Your task to perform on an android device: turn on improve location accuracy Image 0: 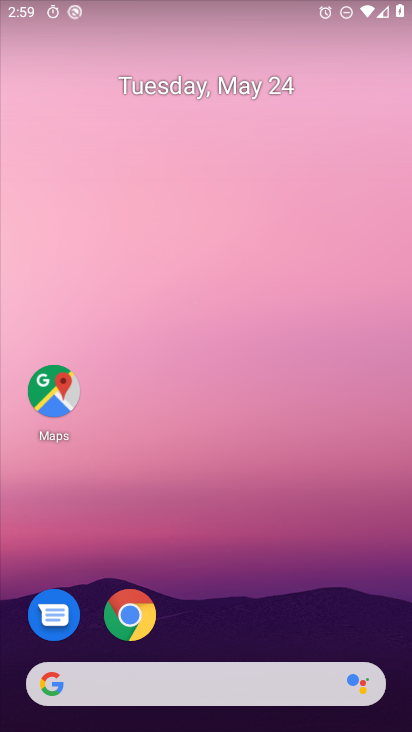
Step 0: drag from (166, 668) to (185, 352)
Your task to perform on an android device: turn on improve location accuracy Image 1: 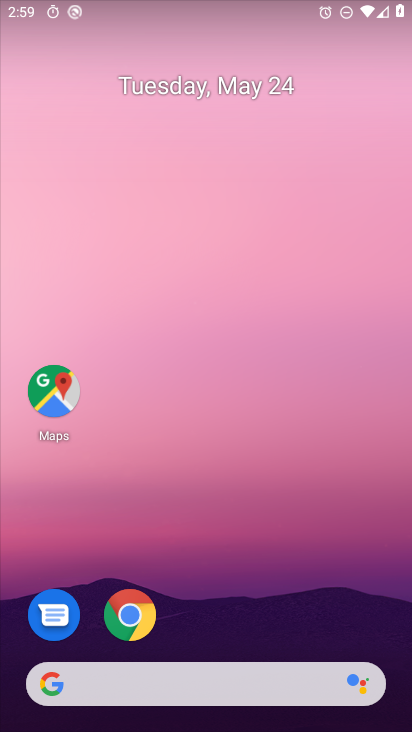
Step 1: drag from (244, 671) to (244, 223)
Your task to perform on an android device: turn on improve location accuracy Image 2: 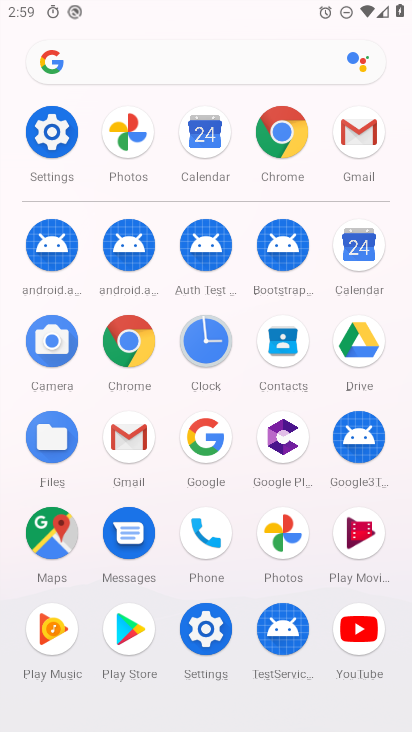
Step 2: click (203, 633)
Your task to perform on an android device: turn on improve location accuracy Image 3: 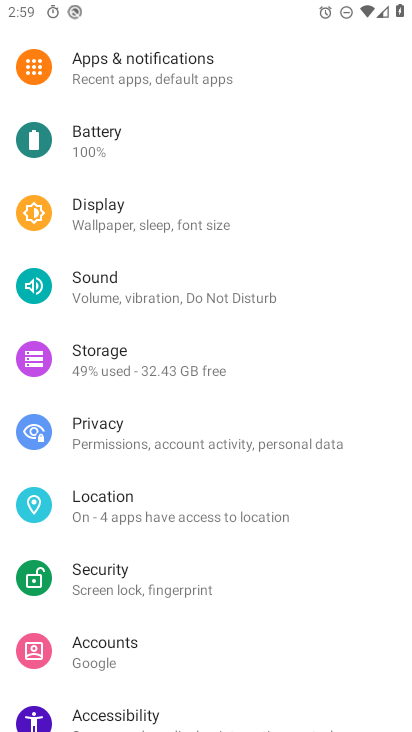
Step 3: drag from (186, 673) to (220, 252)
Your task to perform on an android device: turn on improve location accuracy Image 4: 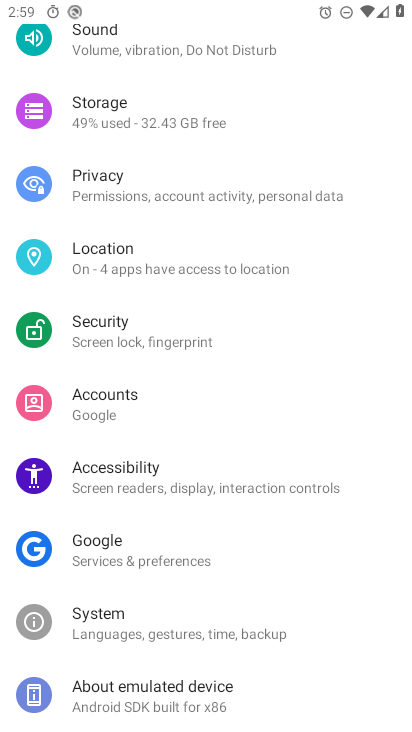
Step 4: click (137, 264)
Your task to perform on an android device: turn on improve location accuracy Image 5: 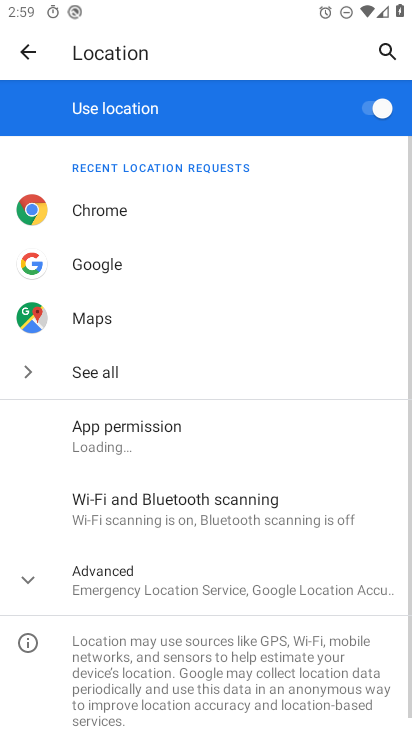
Step 5: click (151, 598)
Your task to perform on an android device: turn on improve location accuracy Image 6: 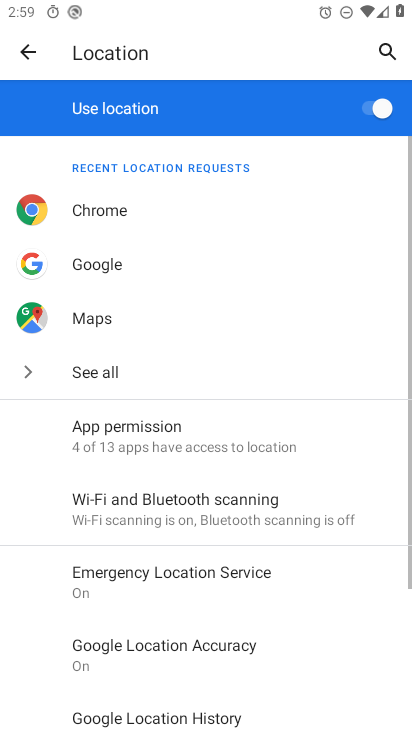
Step 6: drag from (155, 683) to (179, 324)
Your task to perform on an android device: turn on improve location accuracy Image 7: 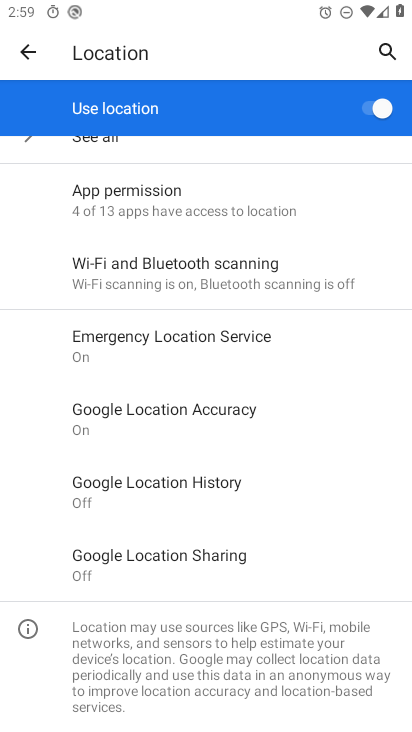
Step 7: click (199, 407)
Your task to perform on an android device: turn on improve location accuracy Image 8: 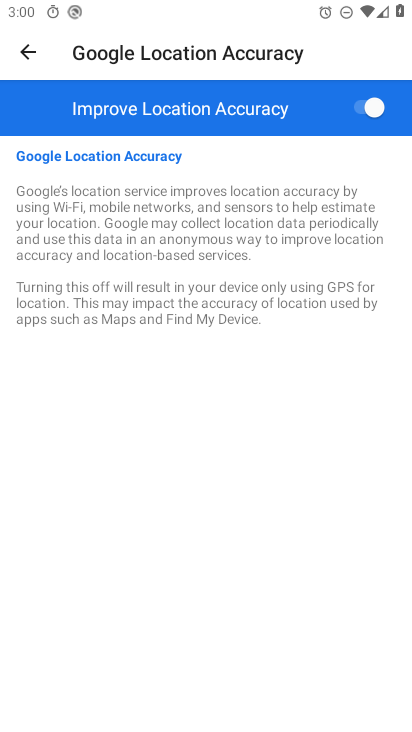
Step 8: task complete